Your task to perform on an android device: Open Google Chrome and click the shortcut for Amazon.com Image 0: 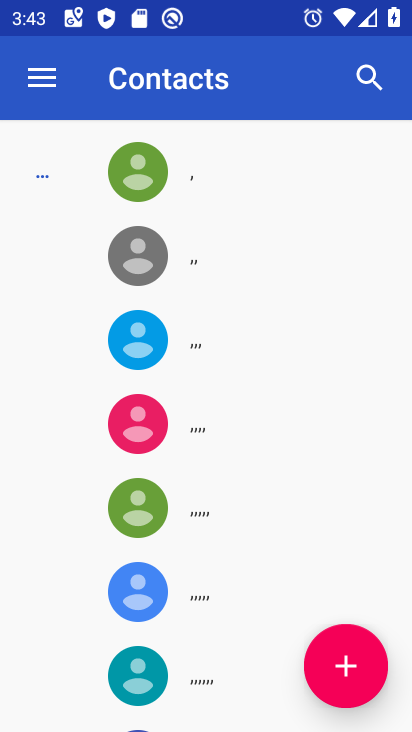
Step 0: press home button
Your task to perform on an android device: Open Google Chrome and click the shortcut for Amazon.com Image 1: 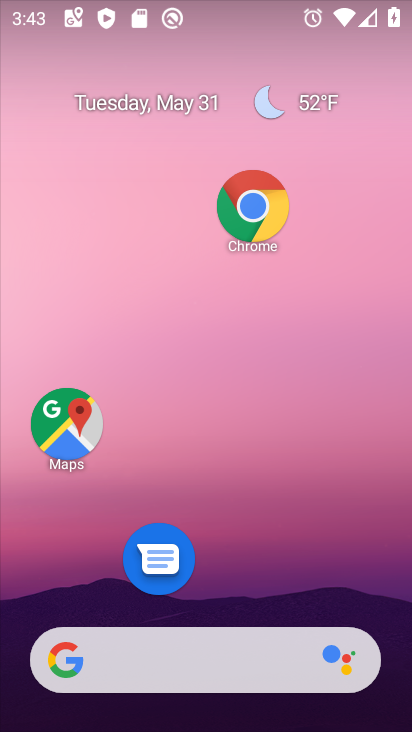
Step 1: click (227, 206)
Your task to perform on an android device: Open Google Chrome and click the shortcut for Amazon.com Image 2: 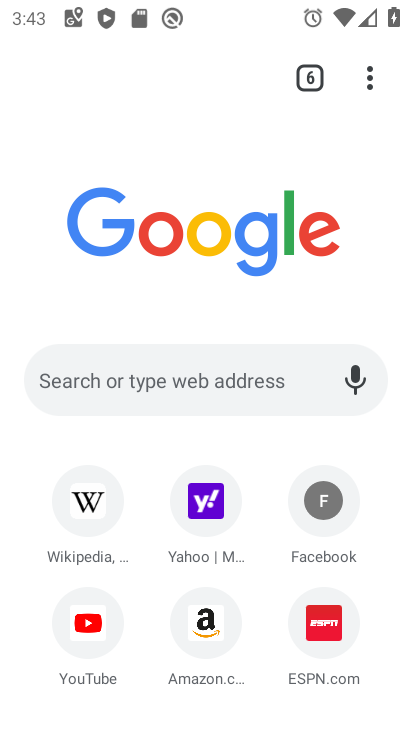
Step 2: click (211, 621)
Your task to perform on an android device: Open Google Chrome and click the shortcut for Amazon.com Image 3: 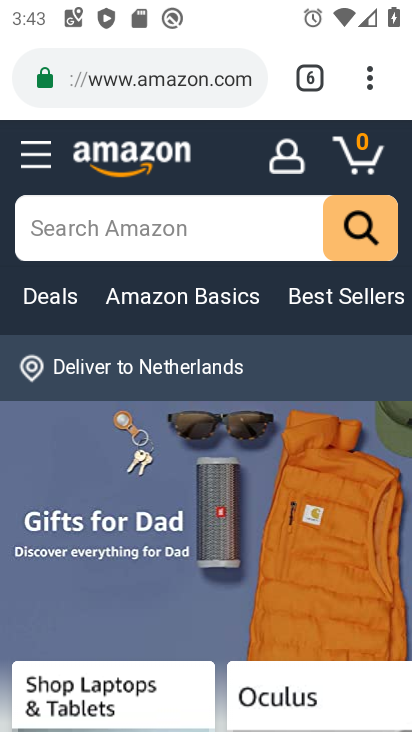
Step 3: task complete